Your task to perform on an android device: Open network settings Image 0: 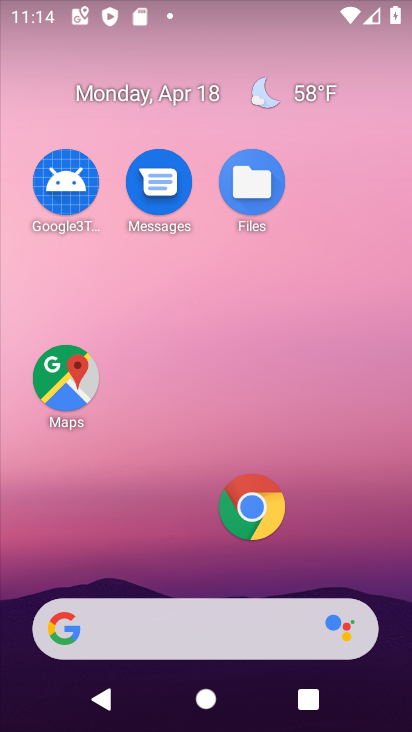
Step 0: drag from (225, 549) to (325, 6)
Your task to perform on an android device: Open network settings Image 1: 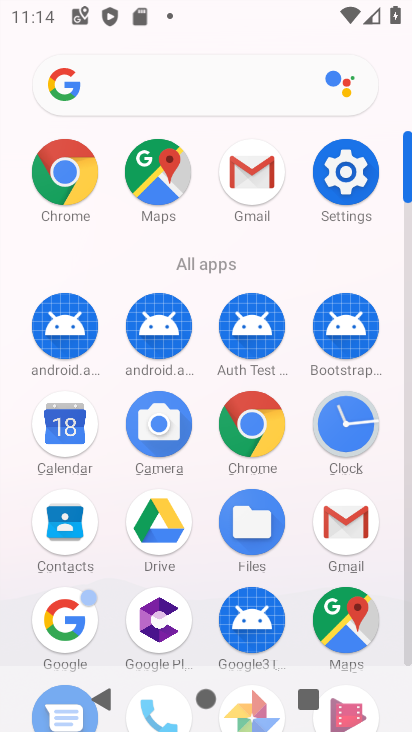
Step 1: click (344, 172)
Your task to perform on an android device: Open network settings Image 2: 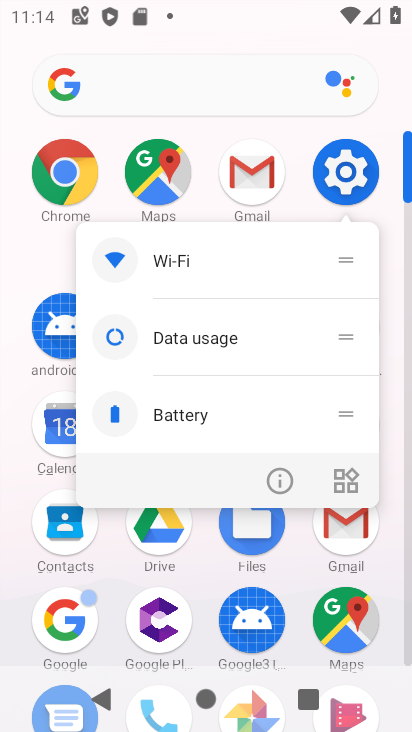
Step 2: click (344, 172)
Your task to perform on an android device: Open network settings Image 3: 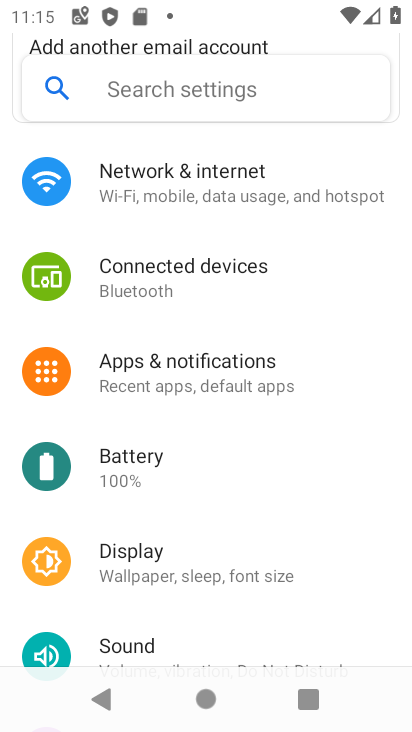
Step 3: drag from (291, 178) to (204, 565)
Your task to perform on an android device: Open network settings Image 4: 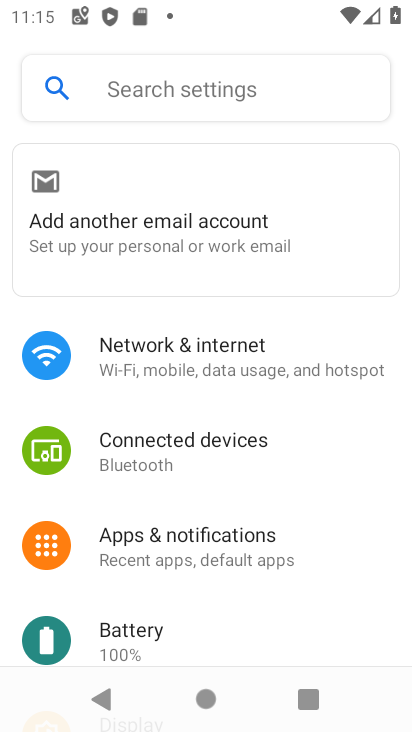
Step 4: click (170, 366)
Your task to perform on an android device: Open network settings Image 5: 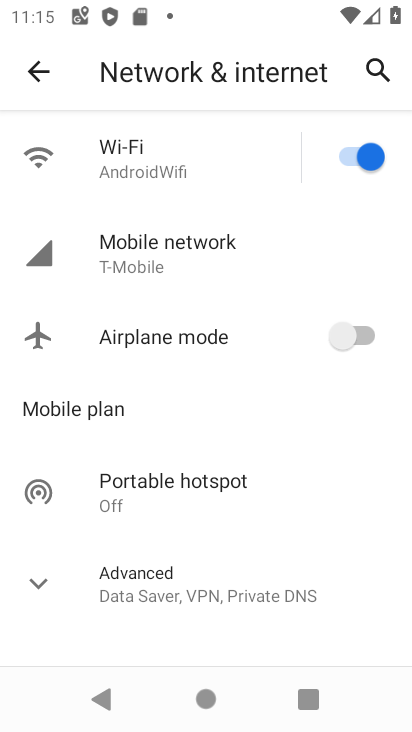
Step 5: click (173, 231)
Your task to perform on an android device: Open network settings Image 6: 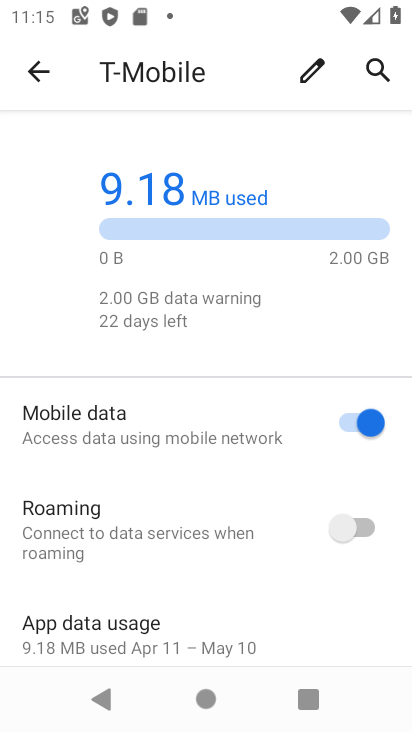
Step 6: drag from (144, 493) to (161, 68)
Your task to perform on an android device: Open network settings Image 7: 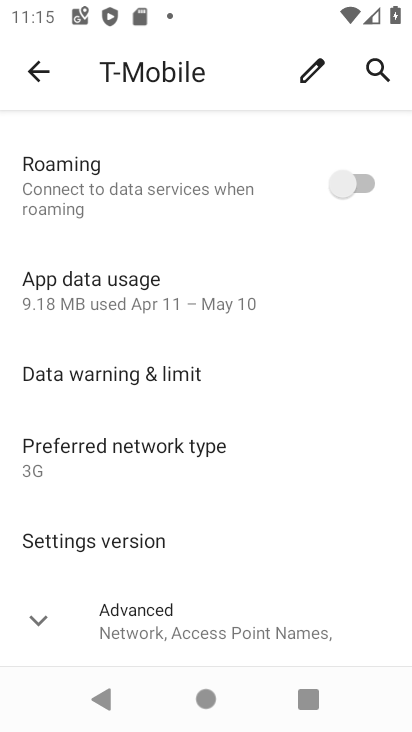
Step 7: drag from (159, 461) to (158, 87)
Your task to perform on an android device: Open network settings Image 8: 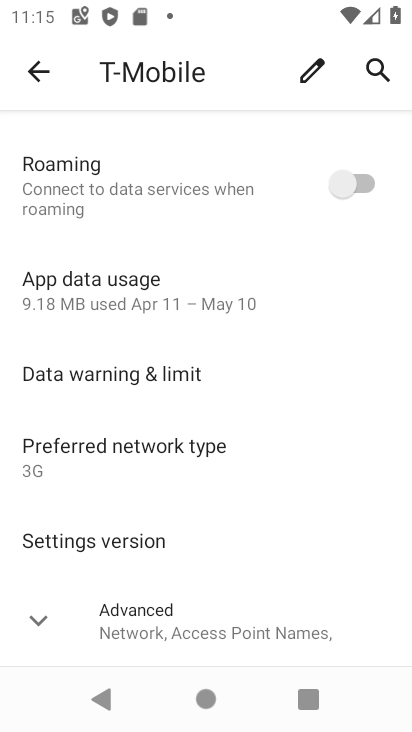
Step 8: click (103, 634)
Your task to perform on an android device: Open network settings Image 9: 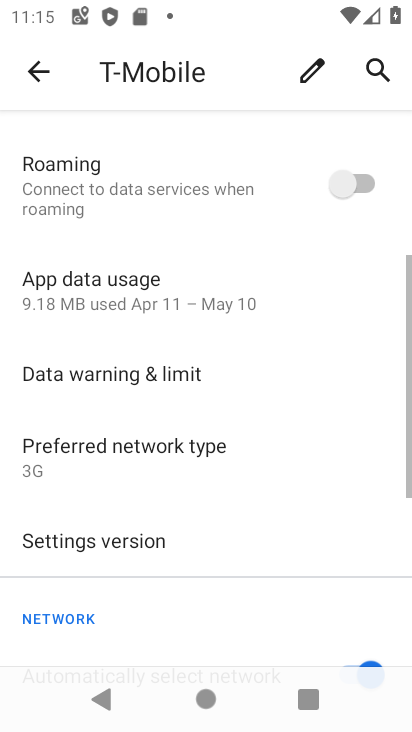
Step 9: task complete